Your task to perform on an android device: Open Google Maps Image 0: 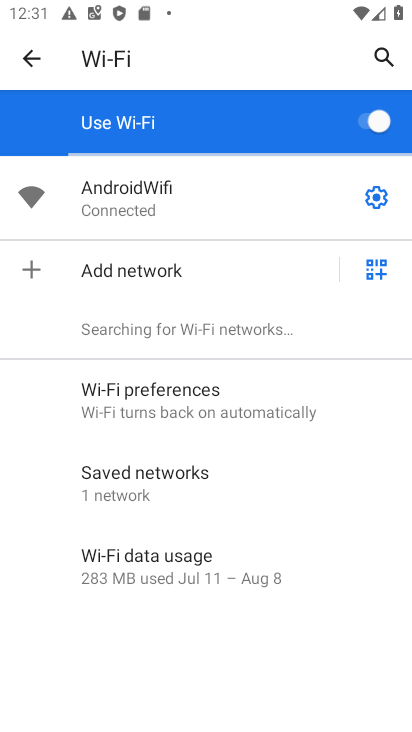
Step 0: press home button
Your task to perform on an android device: Open Google Maps Image 1: 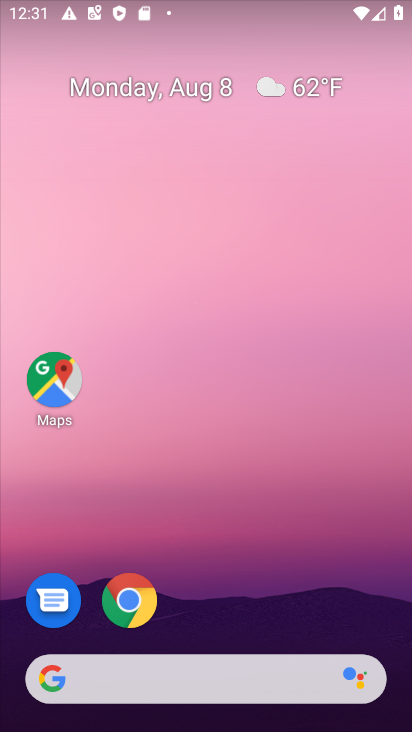
Step 1: click (71, 367)
Your task to perform on an android device: Open Google Maps Image 2: 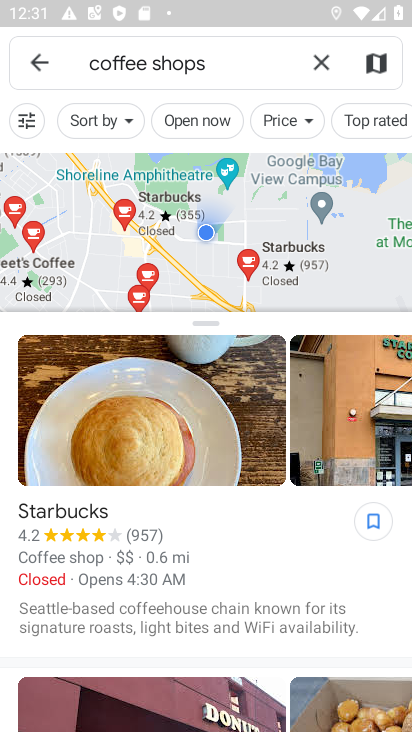
Step 2: click (310, 63)
Your task to perform on an android device: Open Google Maps Image 3: 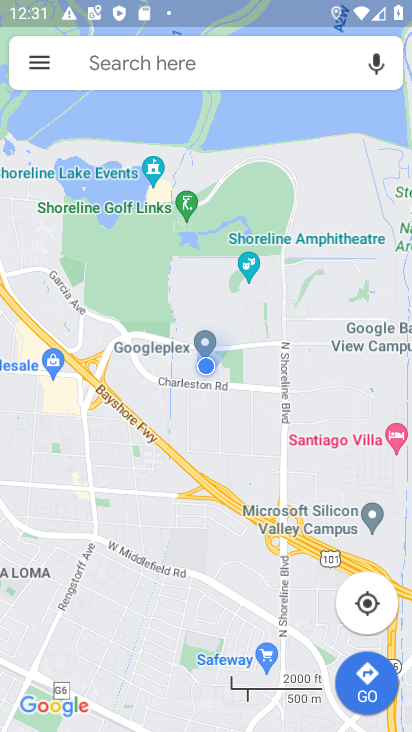
Step 3: task complete